Your task to perform on an android device: check battery use Image 0: 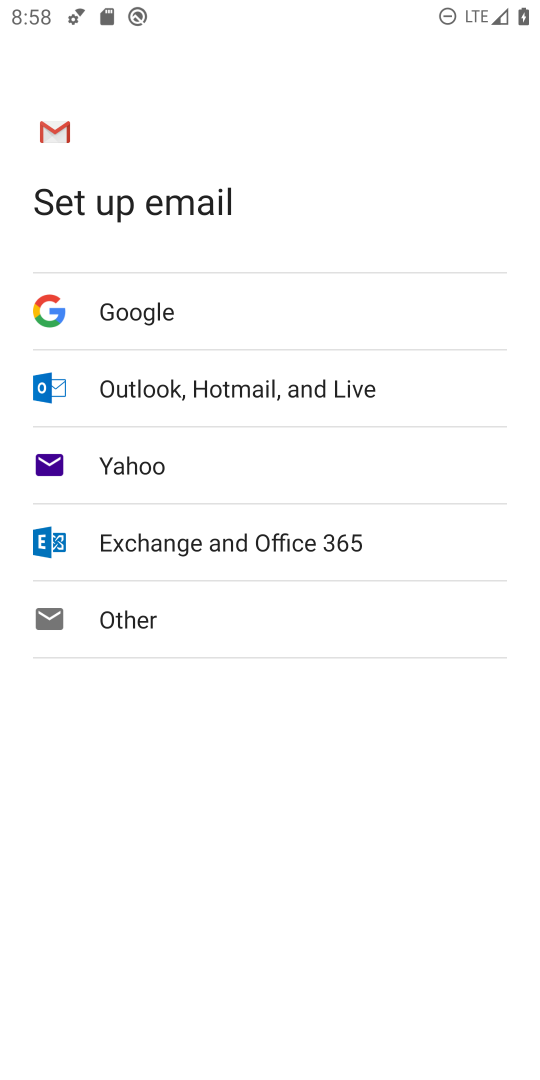
Step 0: press home button
Your task to perform on an android device: check battery use Image 1: 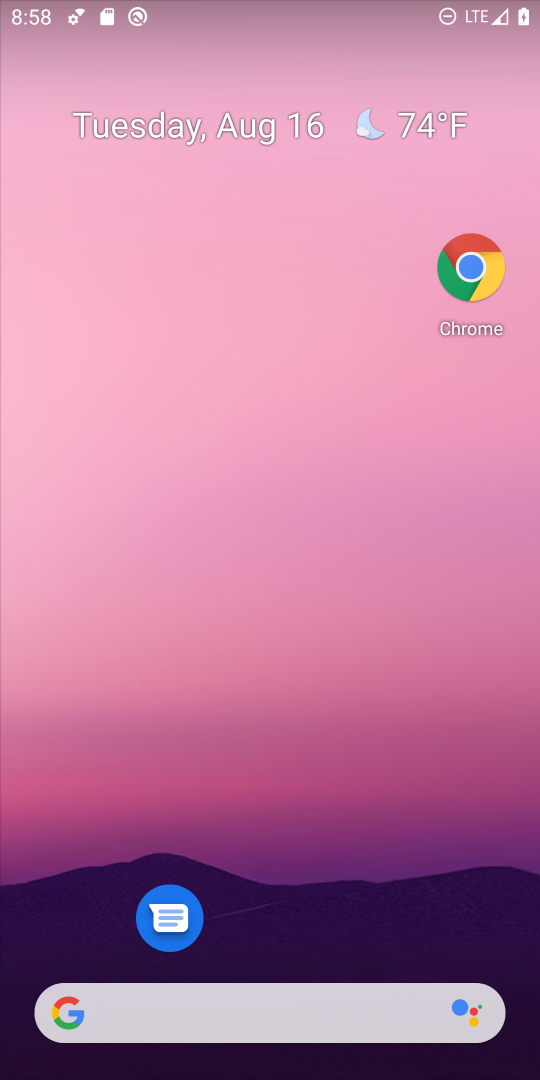
Step 1: click (332, 284)
Your task to perform on an android device: check battery use Image 2: 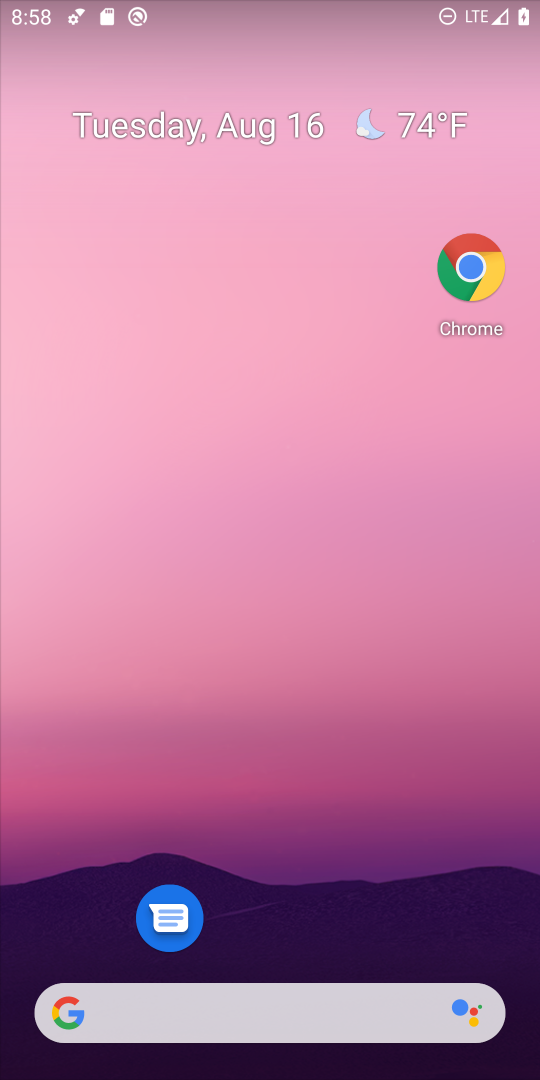
Step 2: drag from (300, 881) to (334, 141)
Your task to perform on an android device: check battery use Image 3: 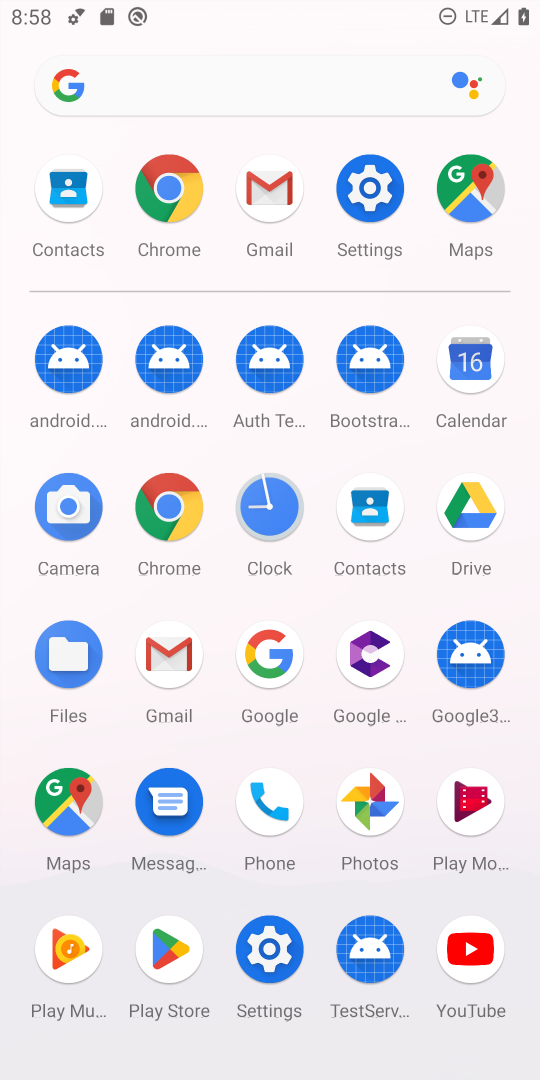
Step 3: click (376, 211)
Your task to perform on an android device: check battery use Image 4: 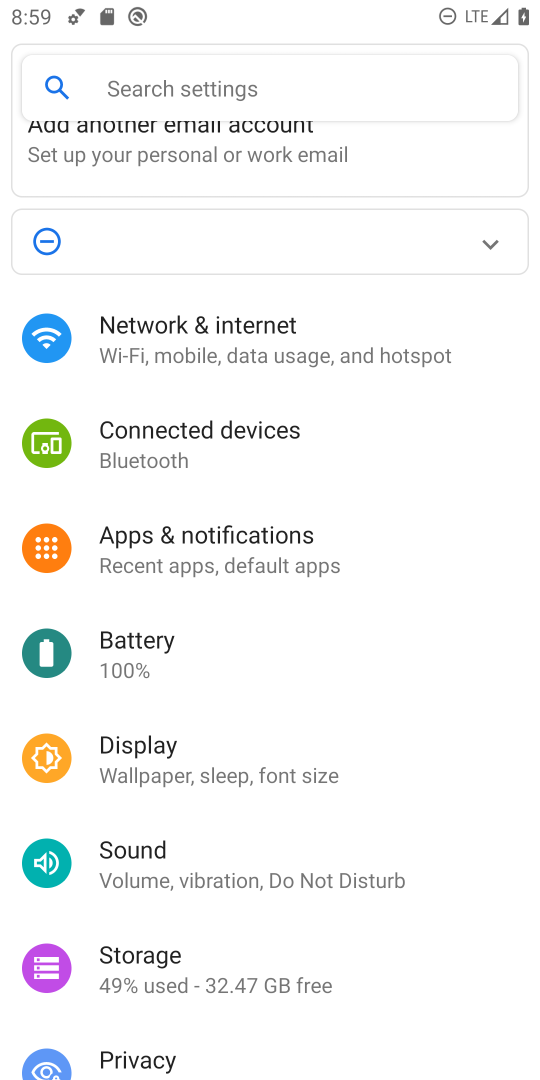
Step 4: click (218, 647)
Your task to perform on an android device: check battery use Image 5: 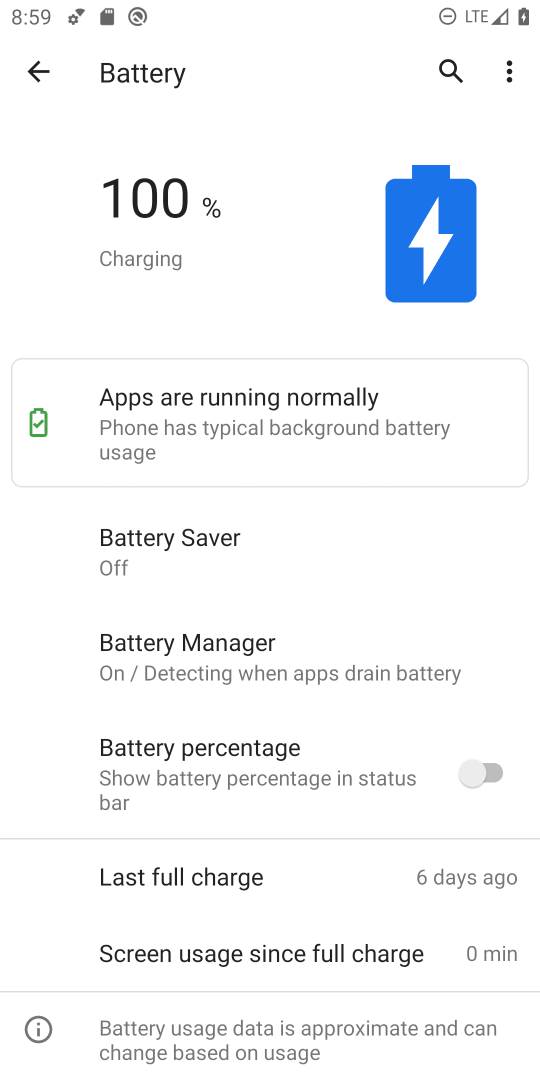
Step 5: task complete